Your task to perform on an android device: turn on improve location accuracy Image 0: 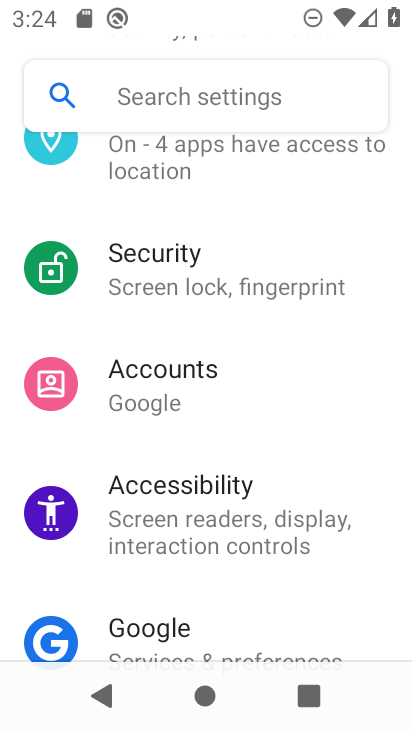
Step 0: click (266, 177)
Your task to perform on an android device: turn on improve location accuracy Image 1: 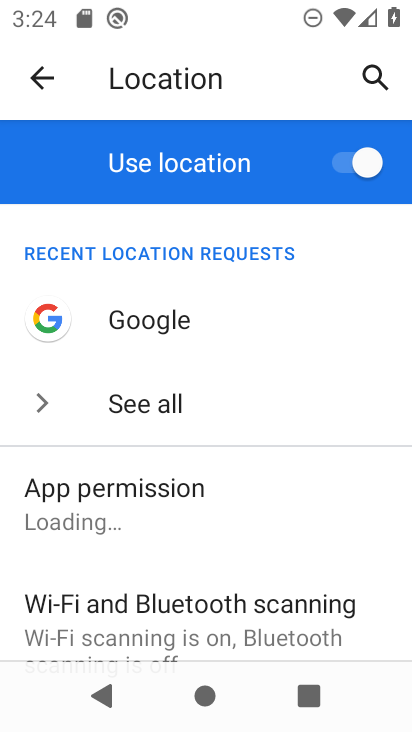
Step 1: drag from (201, 607) to (276, 197)
Your task to perform on an android device: turn on improve location accuracy Image 2: 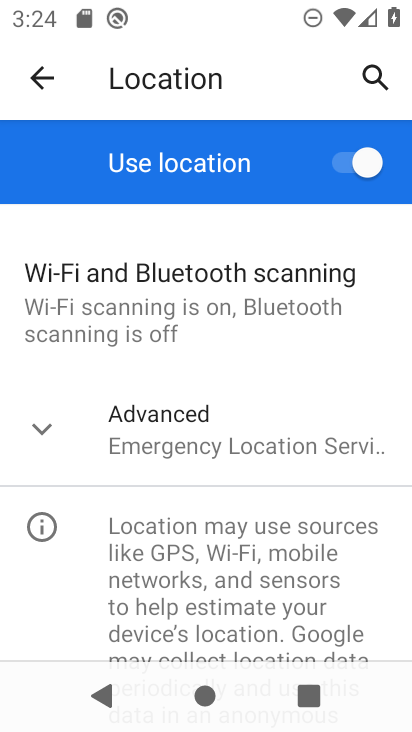
Step 2: click (237, 465)
Your task to perform on an android device: turn on improve location accuracy Image 3: 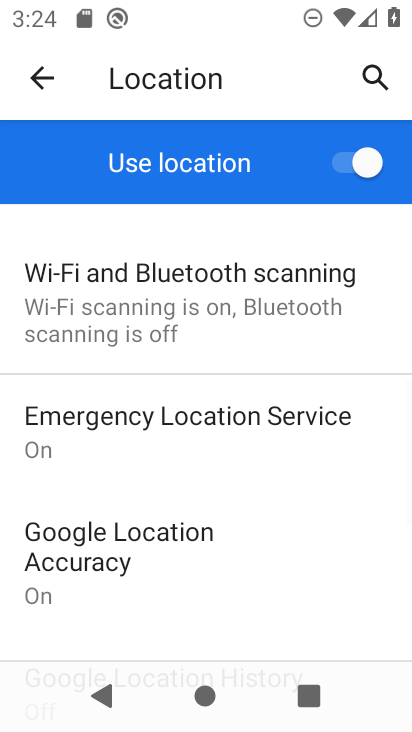
Step 3: drag from (212, 578) to (188, 520)
Your task to perform on an android device: turn on improve location accuracy Image 4: 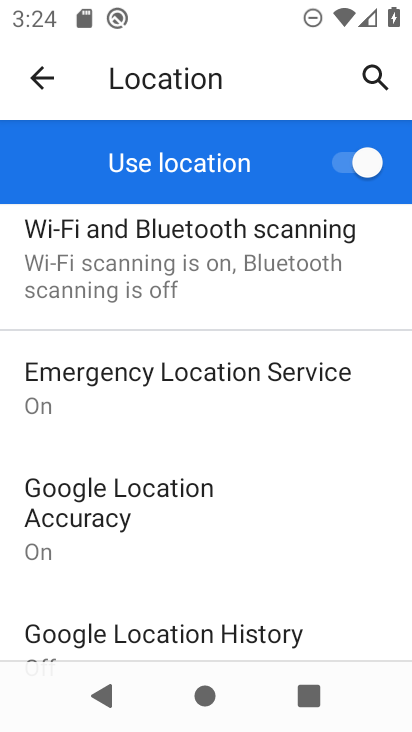
Step 4: click (188, 510)
Your task to perform on an android device: turn on improve location accuracy Image 5: 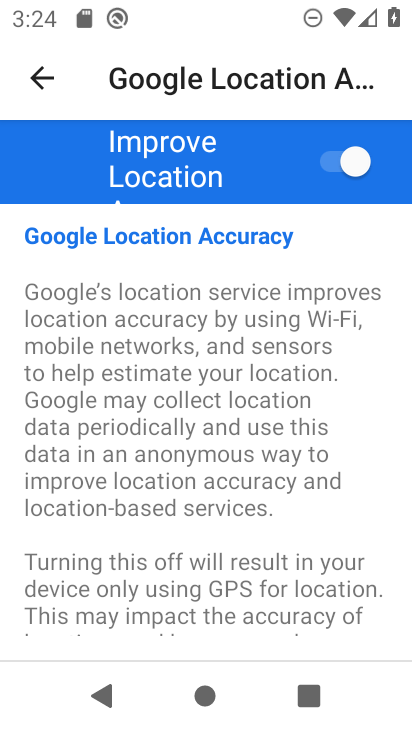
Step 5: task complete